Your task to perform on an android device: Do I have any events tomorrow? Image 0: 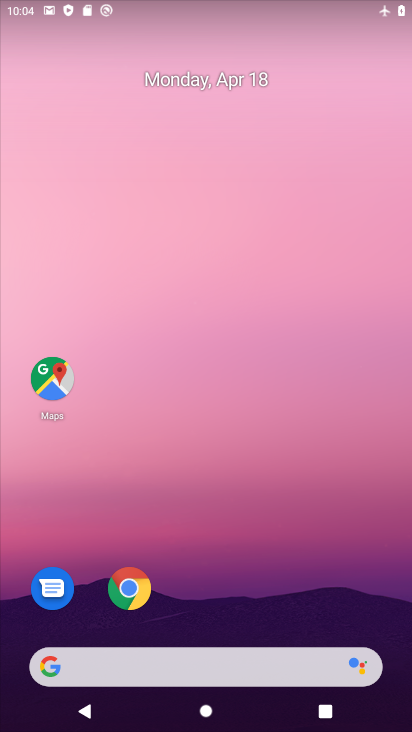
Step 0: drag from (169, 665) to (185, 217)
Your task to perform on an android device: Do I have any events tomorrow? Image 1: 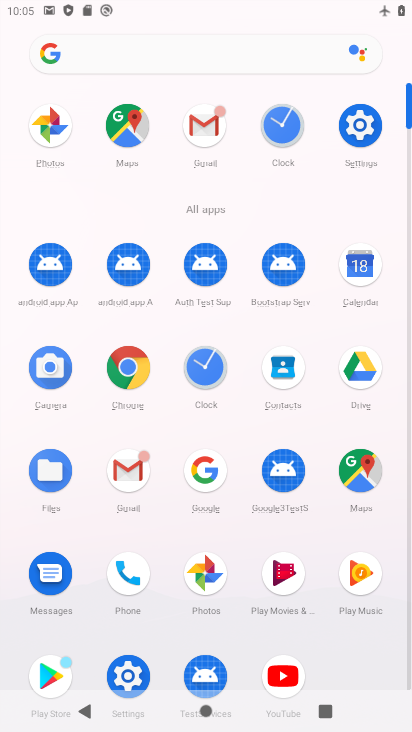
Step 1: click (347, 258)
Your task to perform on an android device: Do I have any events tomorrow? Image 2: 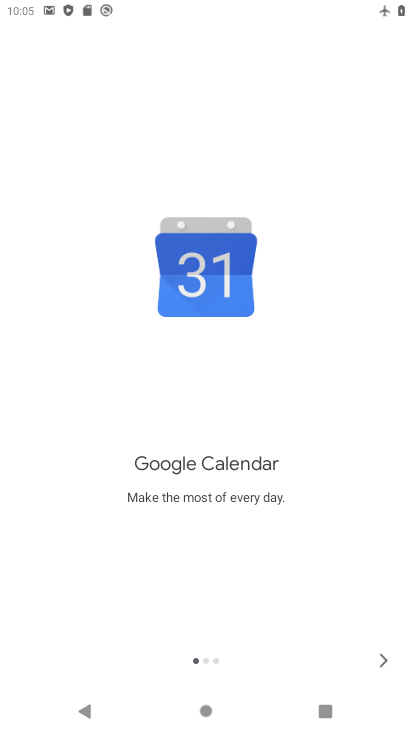
Step 2: click (371, 659)
Your task to perform on an android device: Do I have any events tomorrow? Image 3: 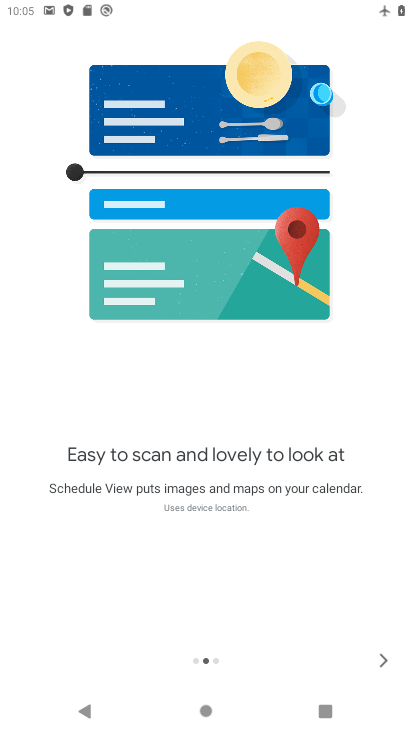
Step 3: click (371, 659)
Your task to perform on an android device: Do I have any events tomorrow? Image 4: 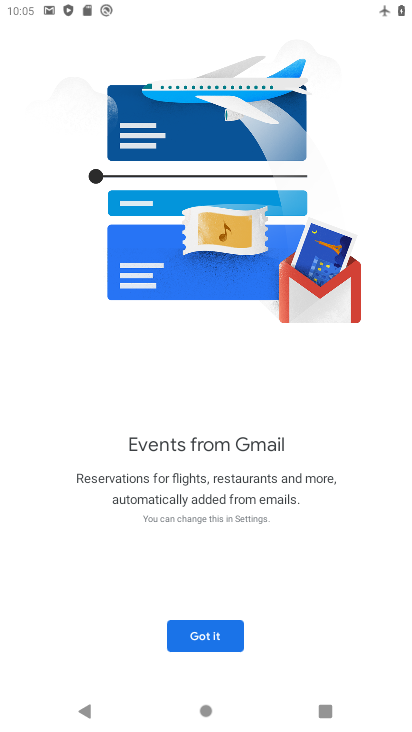
Step 4: click (190, 642)
Your task to perform on an android device: Do I have any events tomorrow? Image 5: 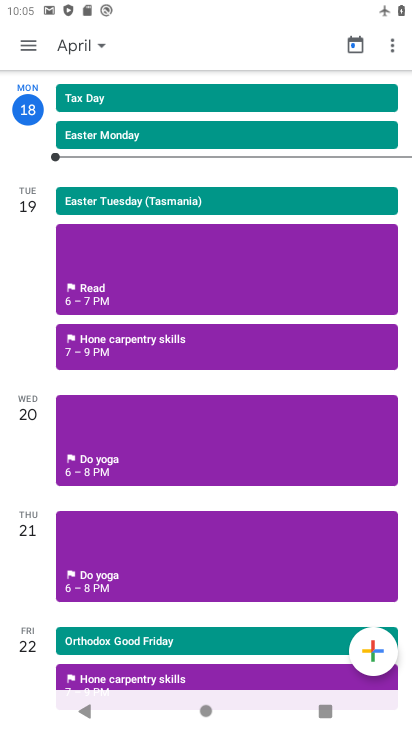
Step 5: task complete